Your task to perform on an android device: Go to Reddit.com Image 0: 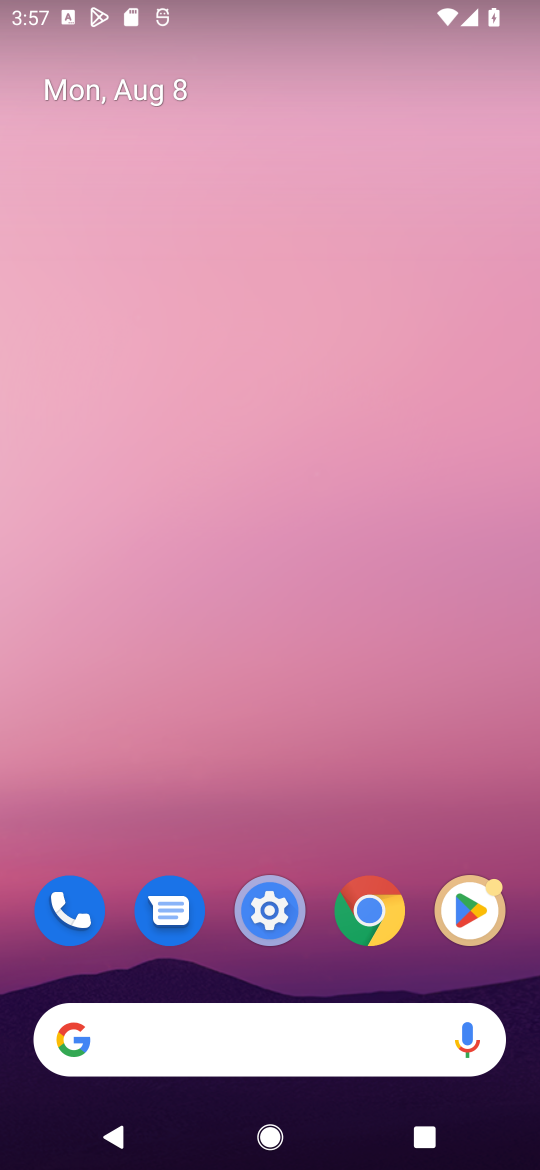
Step 0: click (357, 911)
Your task to perform on an android device: Go to Reddit.com Image 1: 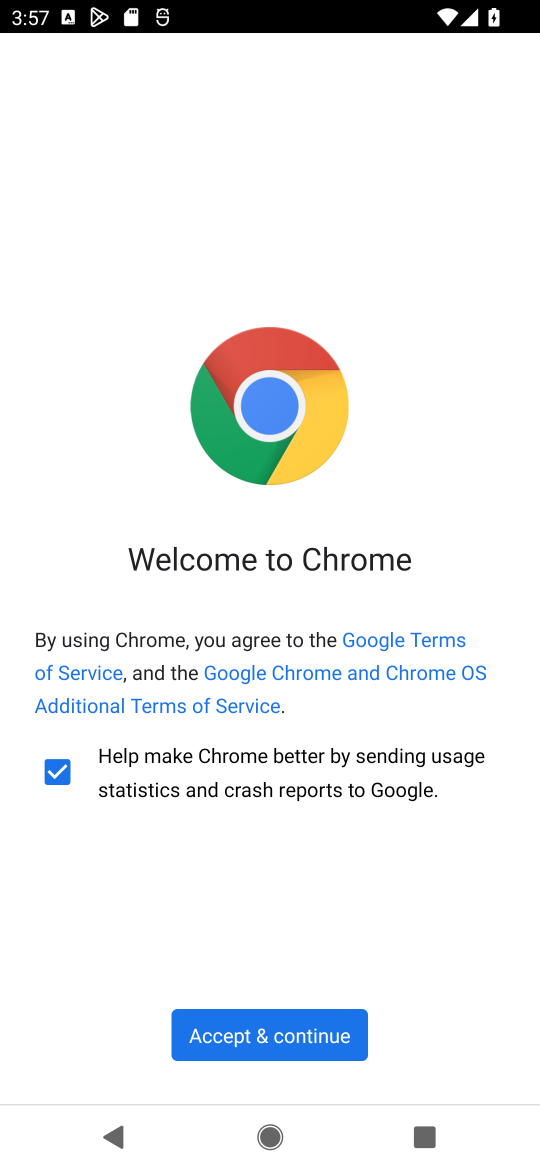
Step 1: click (390, 1037)
Your task to perform on an android device: Go to Reddit.com Image 2: 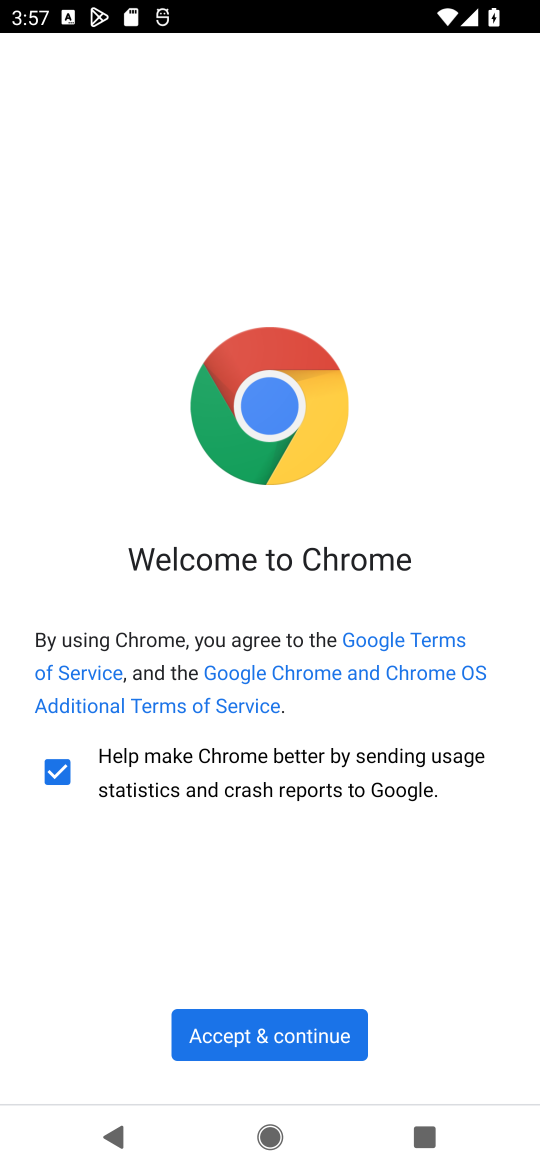
Step 2: click (288, 1050)
Your task to perform on an android device: Go to Reddit.com Image 3: 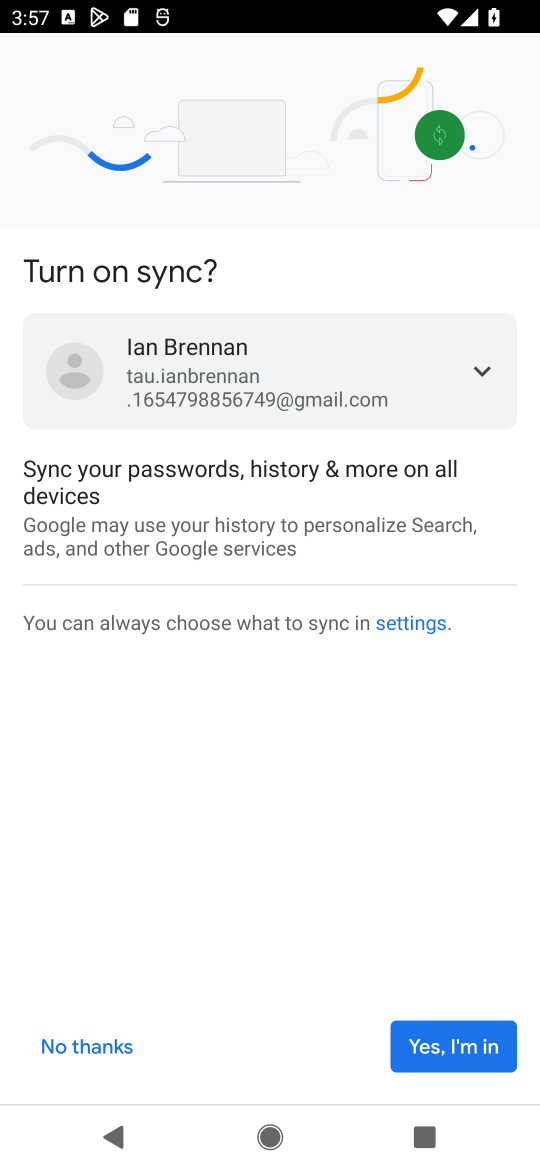
Step 3: click (434, 1057)
Your task to perform on an android device: Go to Reddit.com Image 4: 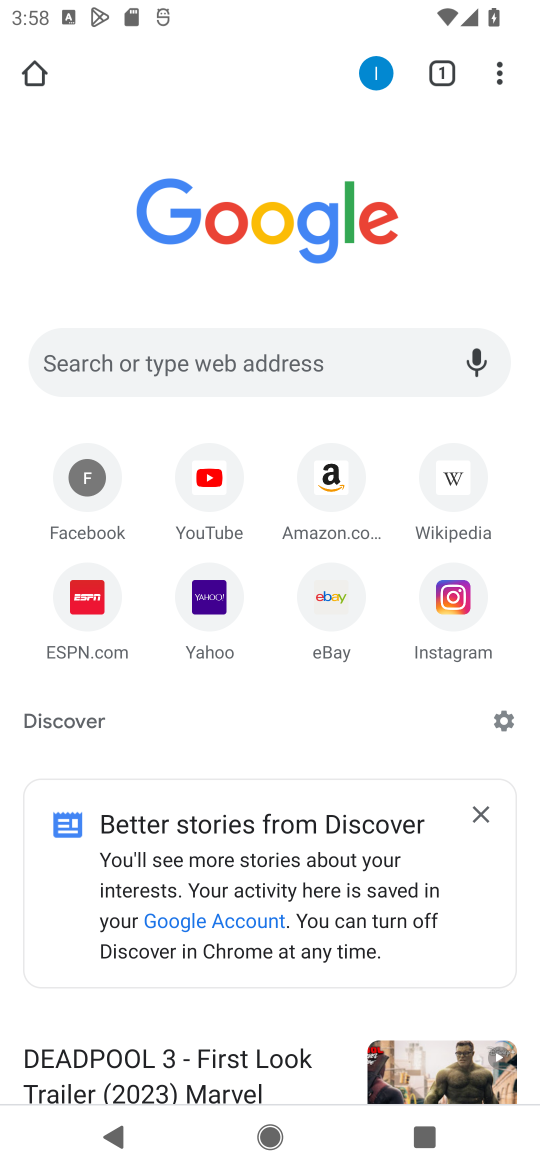
Step 4: click (115, 369)
Your task to perform on an android device: Go to Reddit.com Image 5: 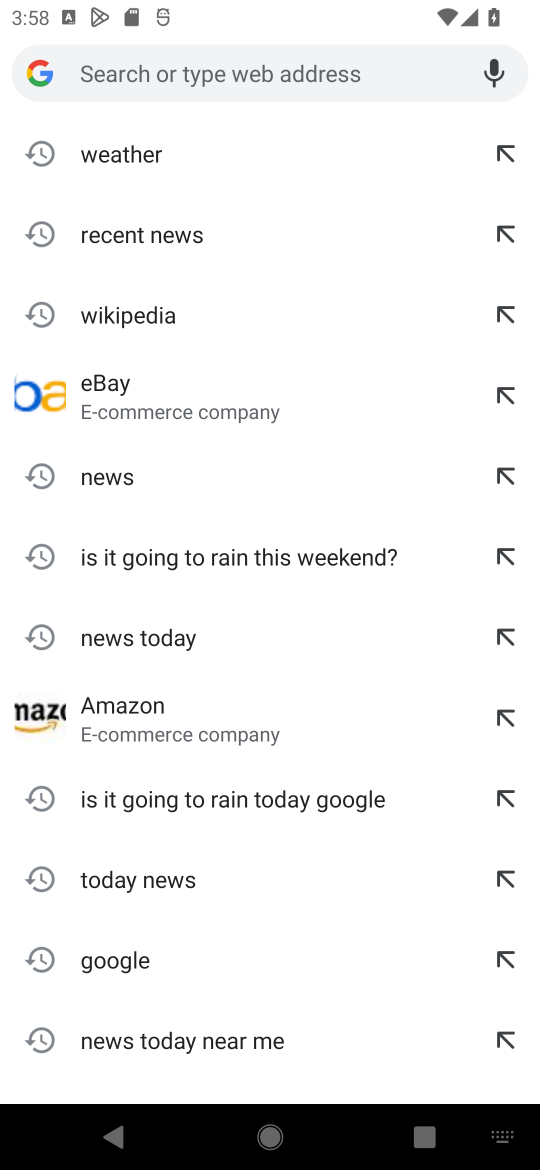
Step 5: type "reddity"
Your task to perform on an android device: Go to Reddit.com Image 6: 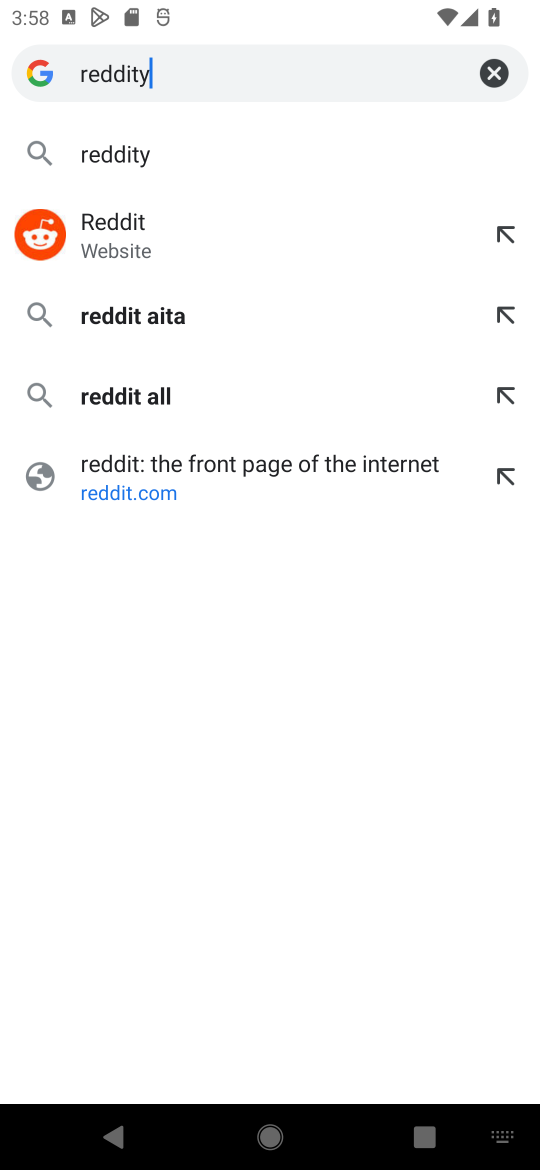
Step 6: click (147, 225)
Your task to perform on an android device: Go to Reddit.com Image 7: 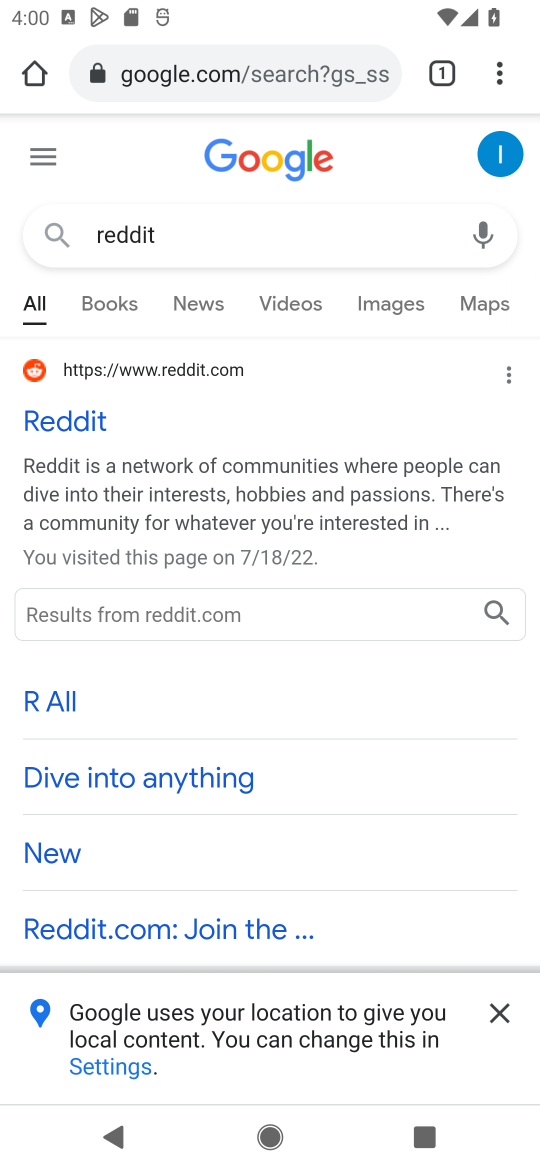
Step 7: click (147, 225)
Your task to perform on an android device: Go to Reddit.com Image 8: 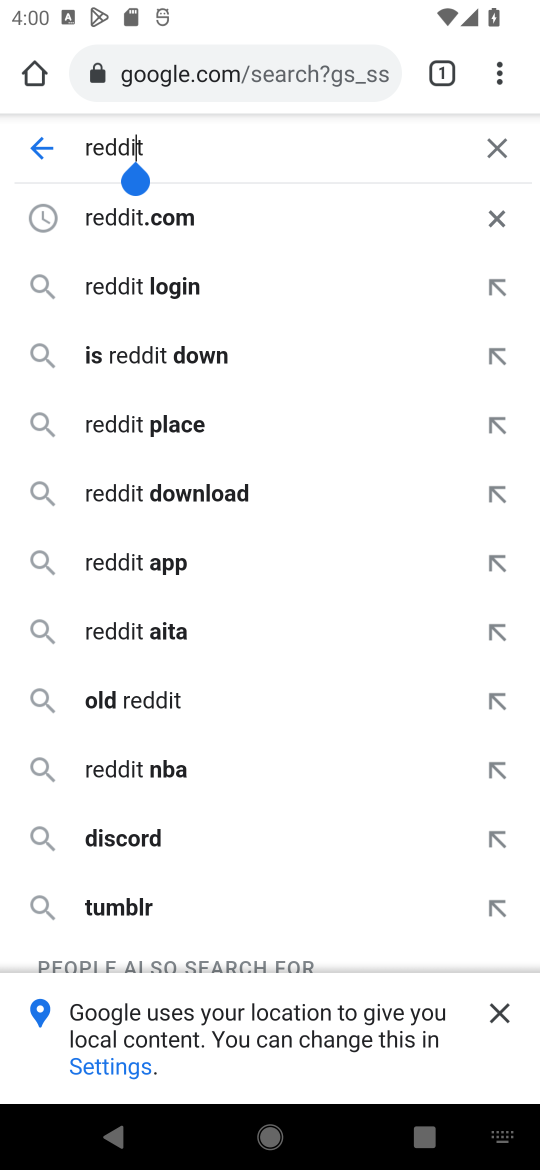
Step 8: click (147, 225)
Your task to perform on an android device: Go to Reddit.com Image 9: 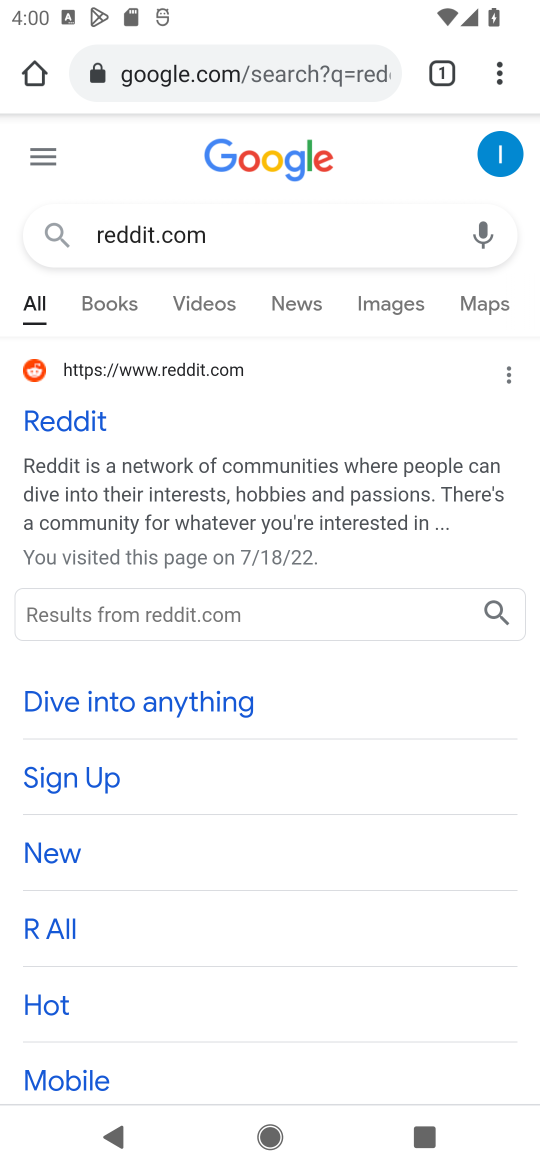
Step 9: click (47, 426)
Your task to perform on an android device: Go to Reddit.com Image 10: 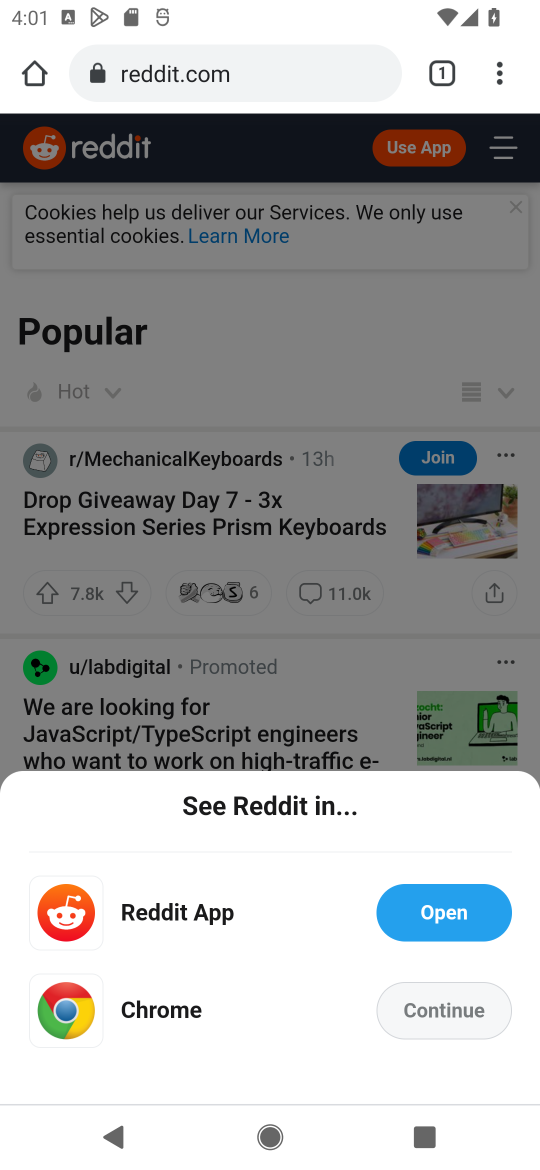
Step 10: click (408, 1018)
Your task to perform on an android device: Go to Reddit.com Image 11: 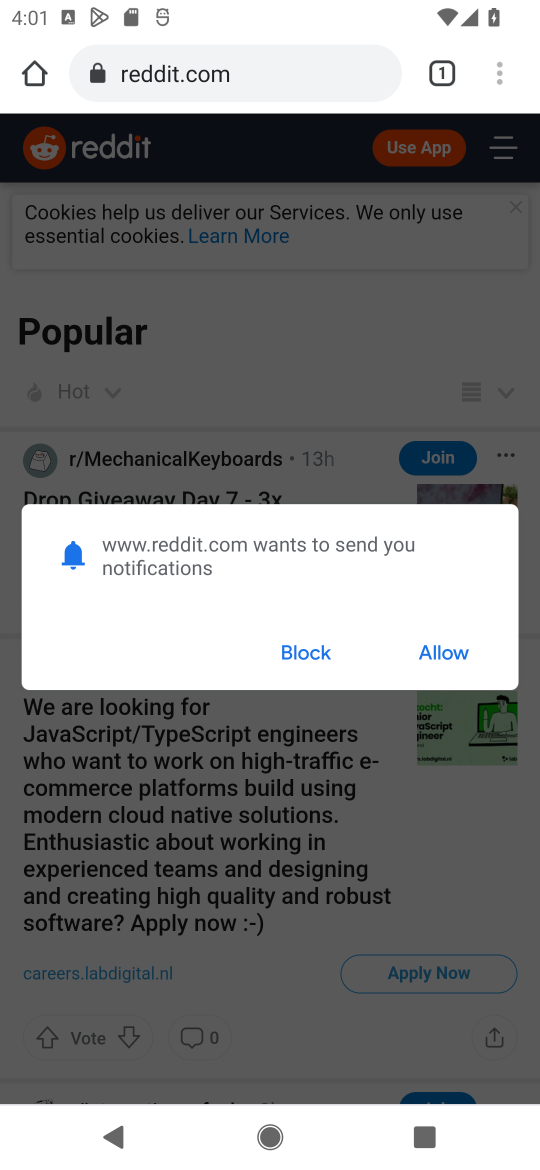
Step 11: task complete